Your task to perform on an android device: turn off location history Image 0: 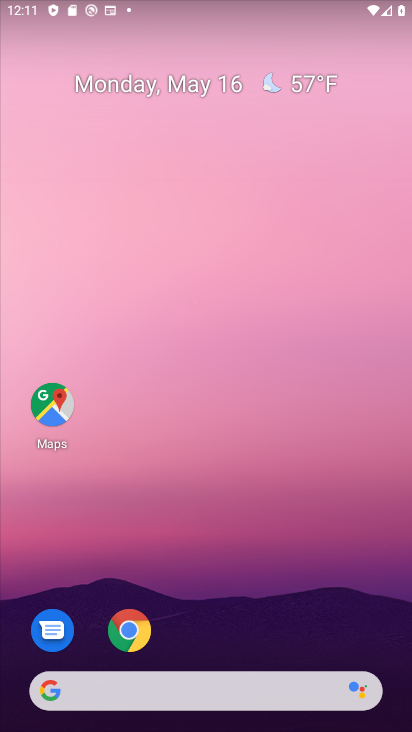
Step 0: drag from (175, 666) to (278, 108)
Your task to perform on an android device: turn off location history Image 1: 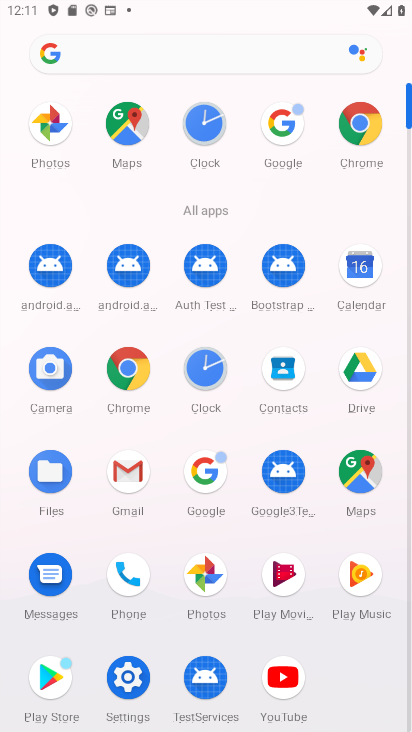
Step 1: click (123, 676)
Your task to perform on an android device: turn off location history Image 2: 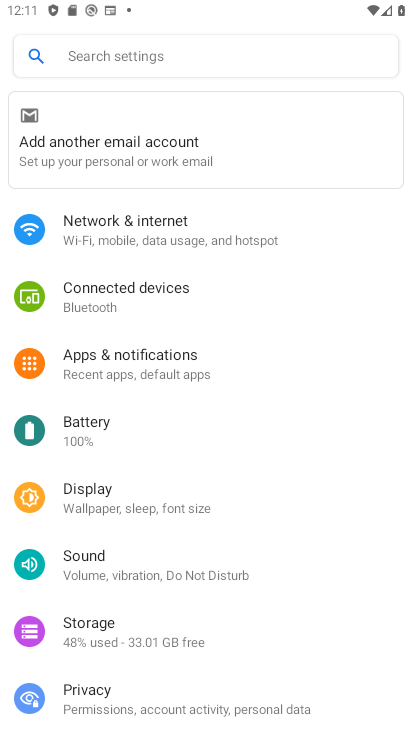
Step 2: drag from (149, 623) to (149, 521)
Your task to perform on an android device: turn off location history Image 3: 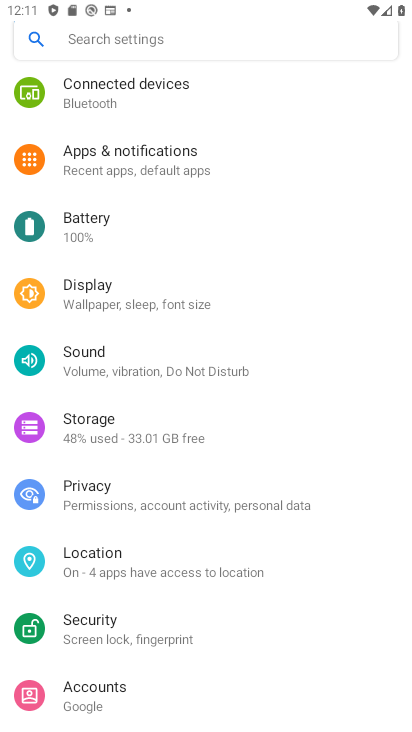
Step 3: click (124, 570)
Your task to perform on an android device: turn off location history Image 4: 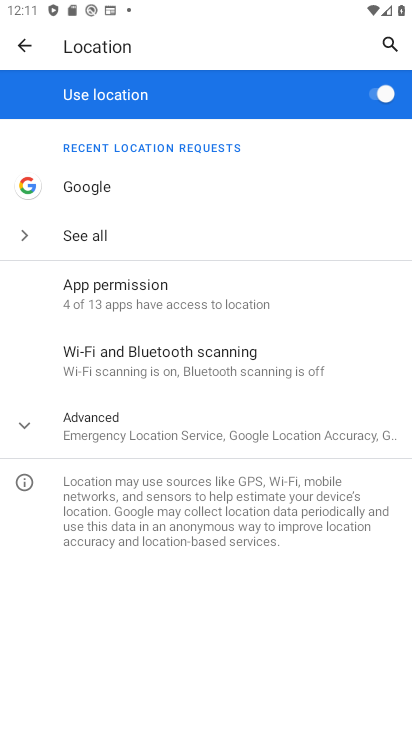
Step 4: click (113, 428)
Your task to perform on an android device: turn off location history Image 5: 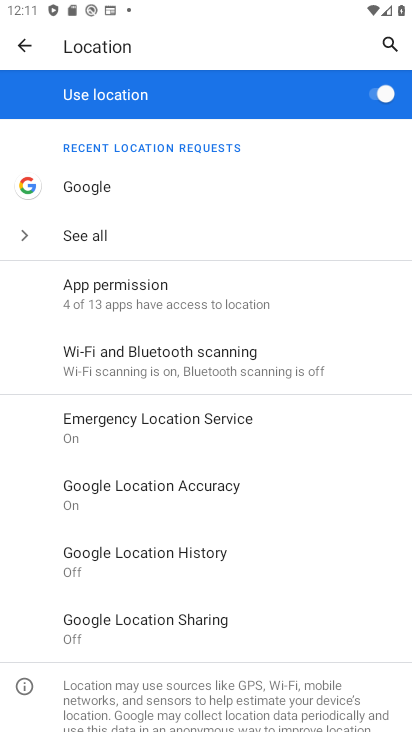
Step 5: click (128, 552)
Your task to perform on an android device: turn off location history Image 6: 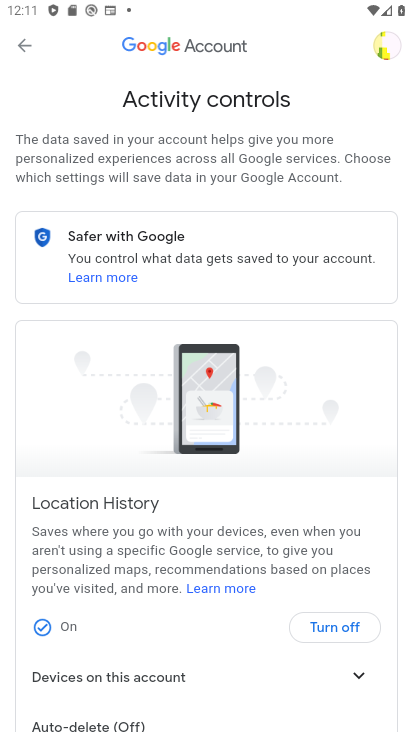
Step 6: click (325, 628)
Your task to perform on an android device: turn off location history Image 7: 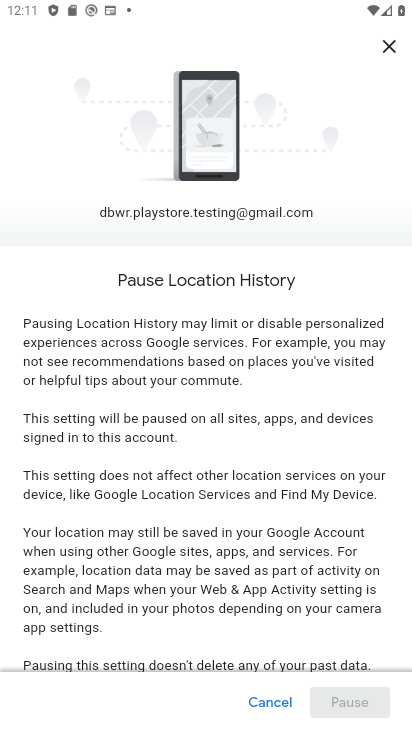
Step 7: click (325, 628)
Your task to perform on an android device: turn off location history Image 8: 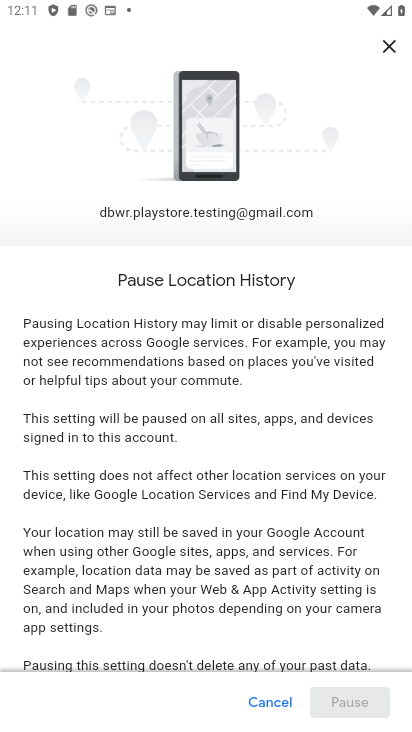
Step 8: drag from (306, 635) to (344, 178)
Your task to perform on an android device: turn off location history Image 9: 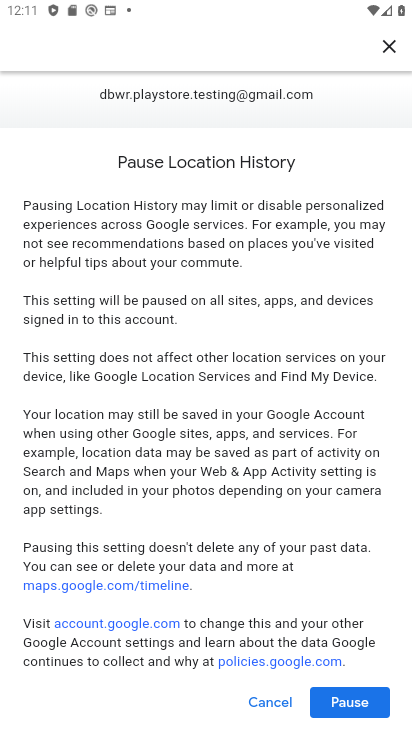
Step 9: click (329, 707)
Your task to perform on an android device: turn off location history Image 10: 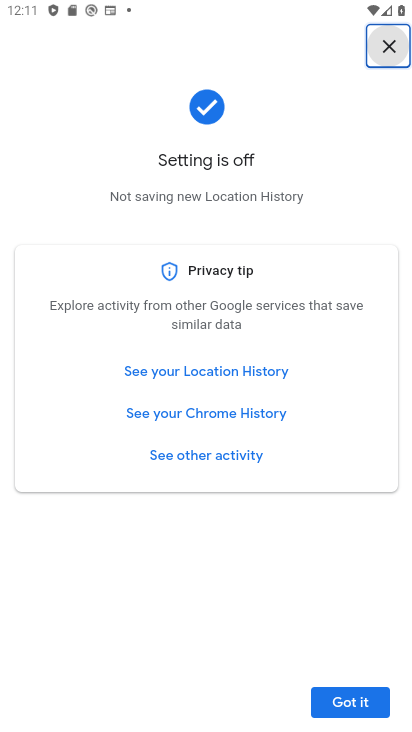
Step 10: click (358, 701)
Your task to perform on an android device: turn off location history Image 11: 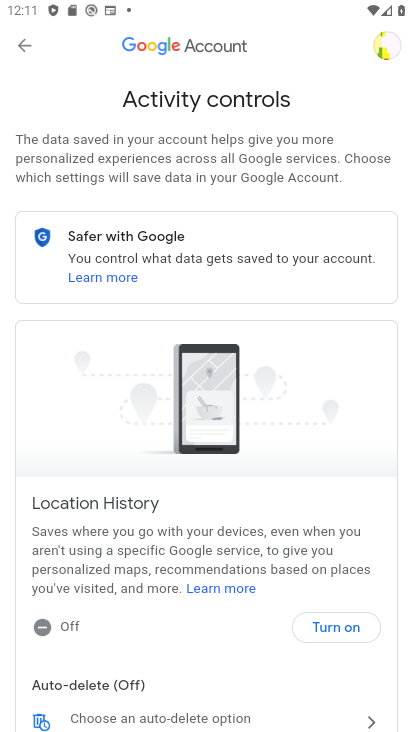
Step 11: click (348, 632)
Your task to perform on an android device: turn off location history Image 12: 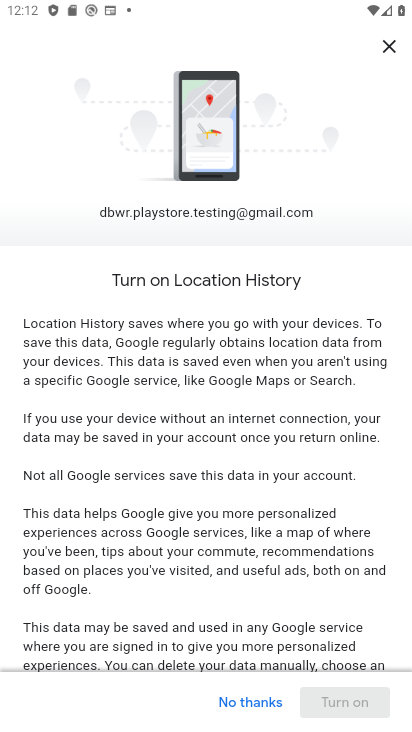
Step 12: click (393, 45)
Your task to perform on an android device: turn off location history Image 13: 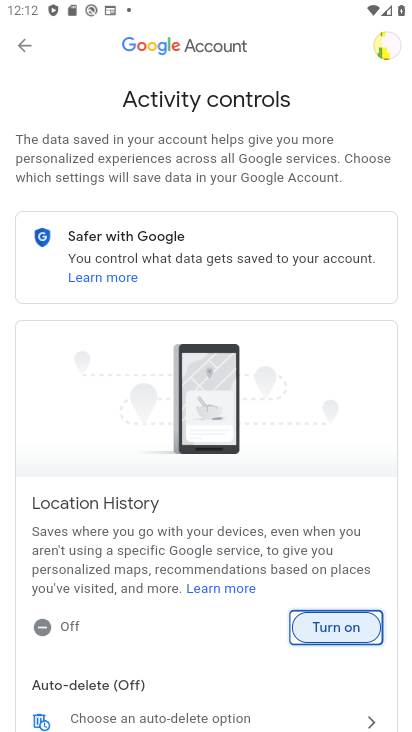
Step 13: task complete